Your task to perform on an android device: Open Maps and search for coffee Image 0: 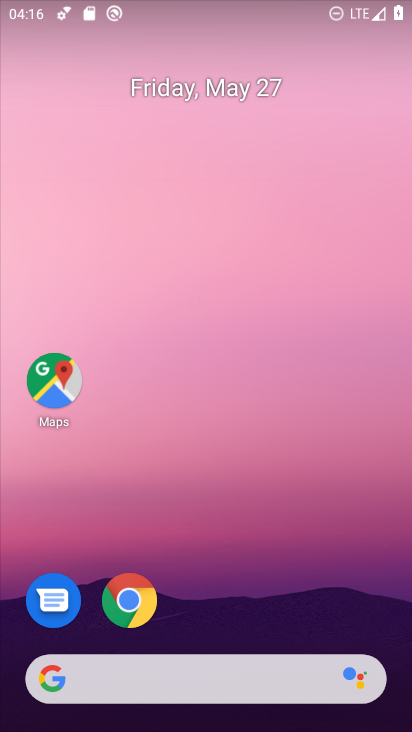
Step 0: drag from (209, 728) to (217, 88)
Your task to perform on an android device: Open Maps and search for coffee Image 1: 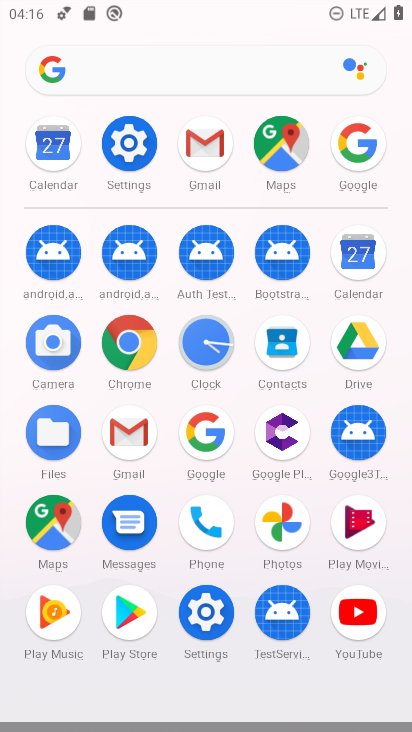
Step 1: click (54, 515)
Your task to perform on an android device: Open Maps and search for coffee Image 2: 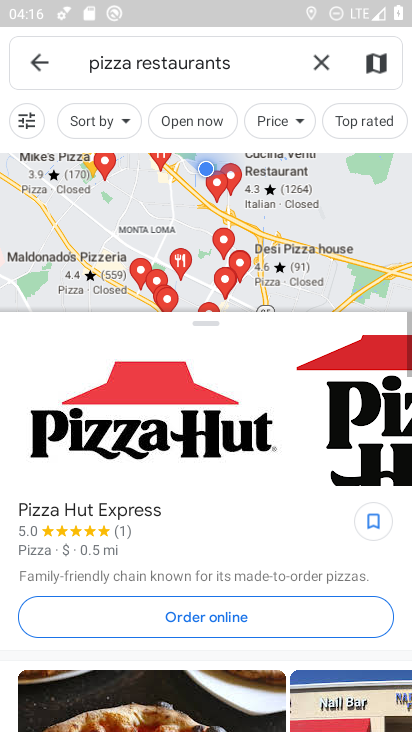
Step 2: click (316, 60)
Your task to perform on an android device: Open Maps and search for coffee Image 3: 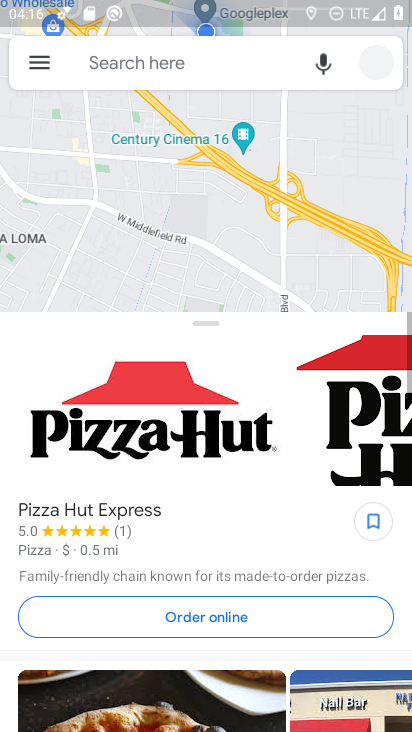
Step 3: click (178, 61)
Your task to perform on an android device: Open Maps and search for coffee Image 4: 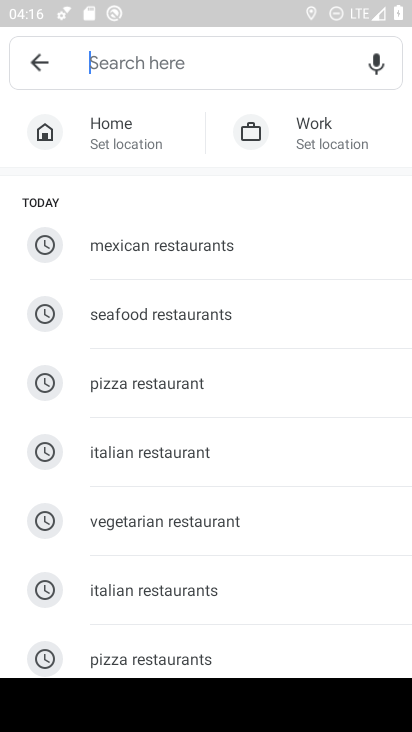
Step 4: type "coffee"
Your task to perform on an android device: Open Maps and search for coffee Image 5: 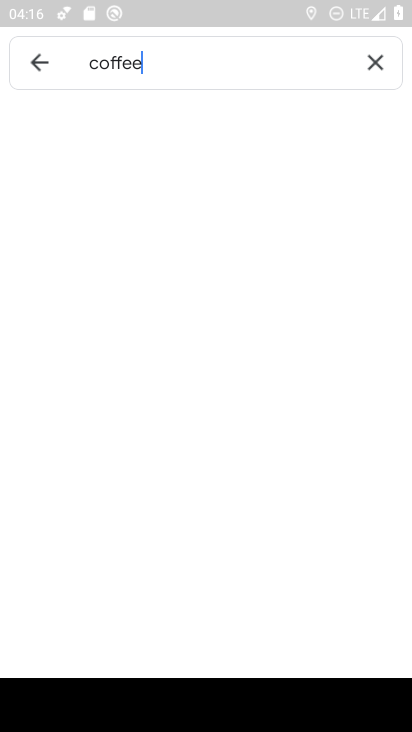
Step 5: type ""
Your task to perform on an android device: Open Maps and search for coffee Image 6: 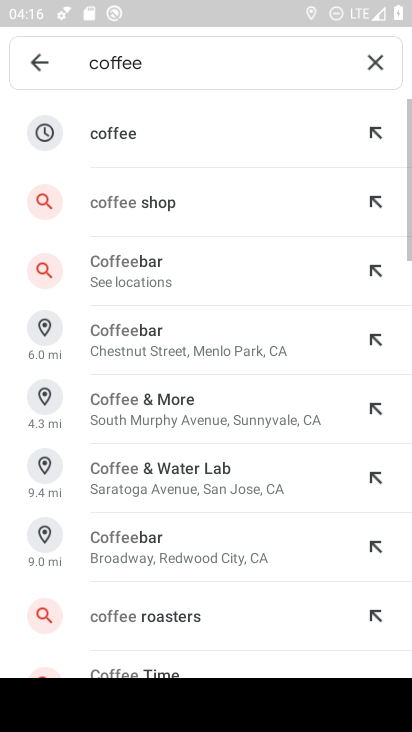
Step 6: click (108, 130)
Your task to perform on an android device: Open Maps and search for coffee Image 7: 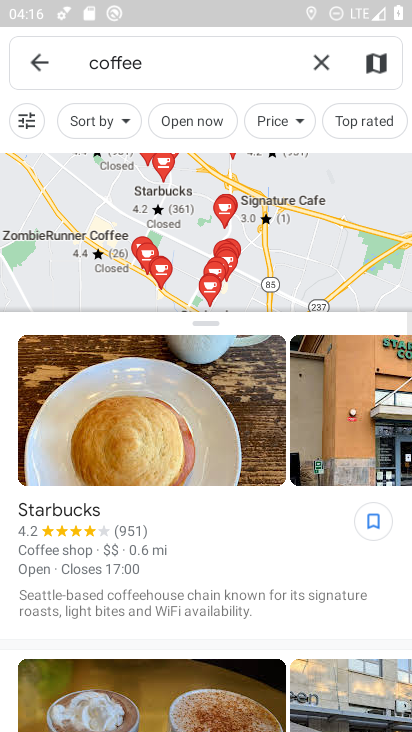
Step 7: task complete